Your task to perform on an android device: clear all cookies in the chrome app Image 0: 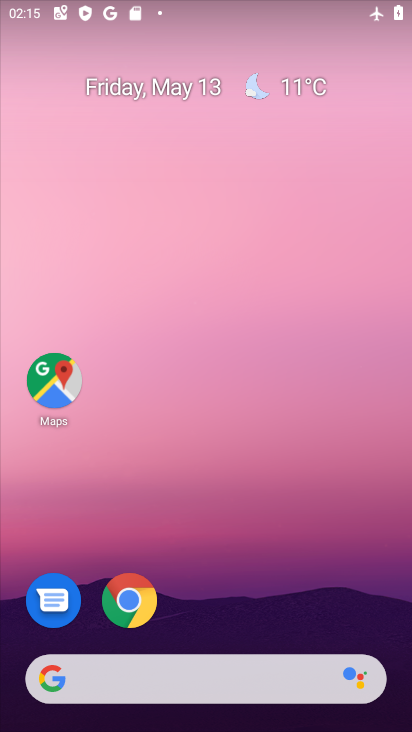
Step 0: drag from (226, 626) to (269, 224)
Your task to perform on an android device: clear all cookies in the chrome app Image 1: 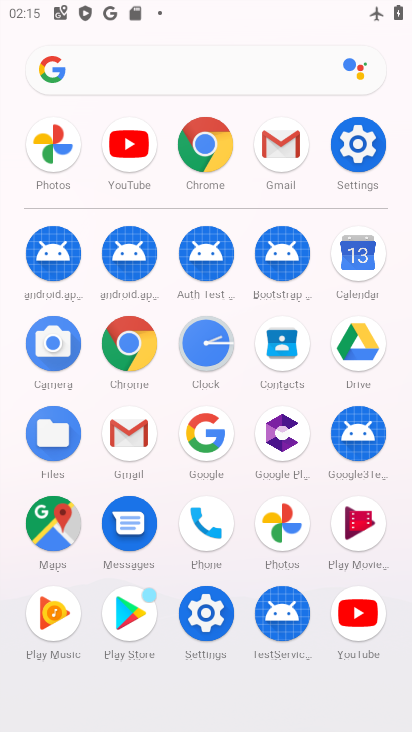
Step 1: click (125, 329)
Your task to perform on an android device: clear all cookies in the chrome app Image 2: 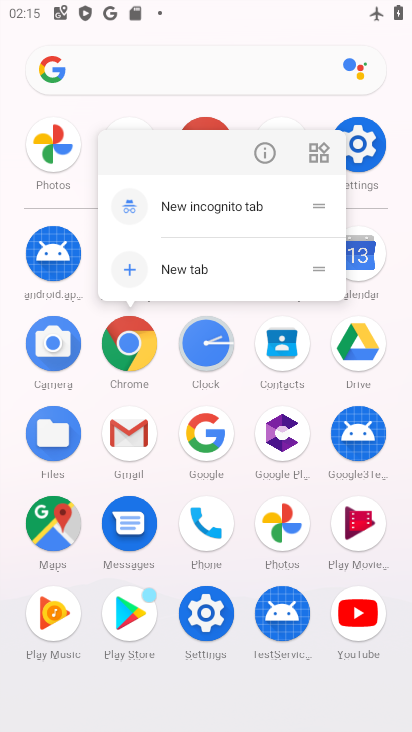
Step 2: click (270, 152)
Your task to perform on an android device: clear all cookies in the chrome app Image 3: 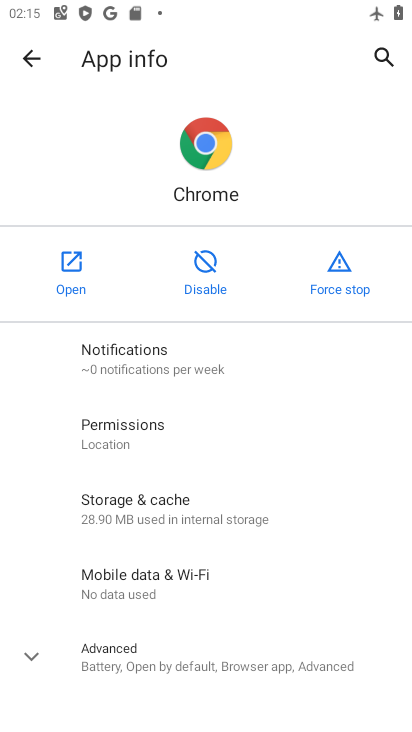
Step 3: click (66, 280)
Your task to perform on an android device: clear all cookies in the chrome app Image 4: 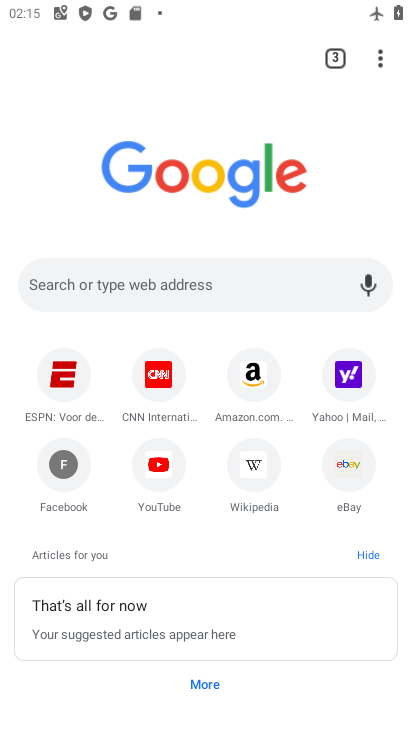
Step 4: drag from (385, 61) to (193, 324)
Your task to perform on an android device: clear all cookies in the chrome app Image 5: 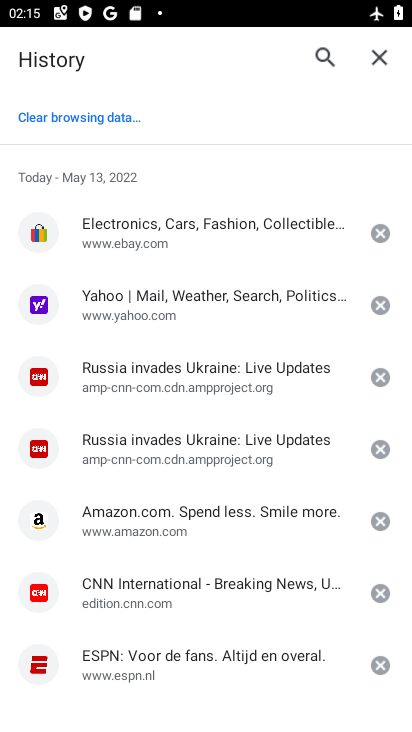
Step 5: click (66, 114)
Your task to perform on an android device: clear all cookies in the chrome app Image 6: 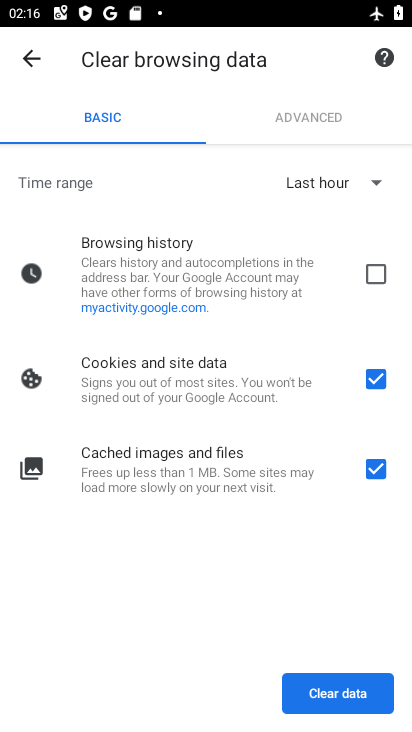
Step 6: click (323, 691)
Your task to perform on an android device: clear all cookies in the chrome app Image 7: 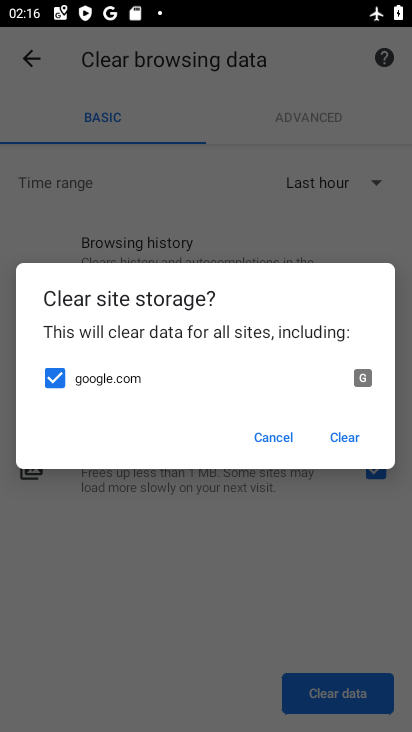
Step 7: click (347, 431)
Your task to perform on an android device: clear all cookies in the chrome app Image 8: 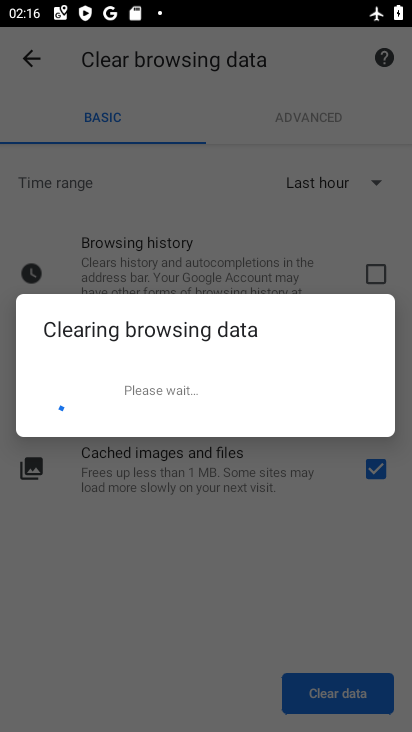
Step 8: task complete